Your task to perform on an android device: Open CNN.com Image 0: 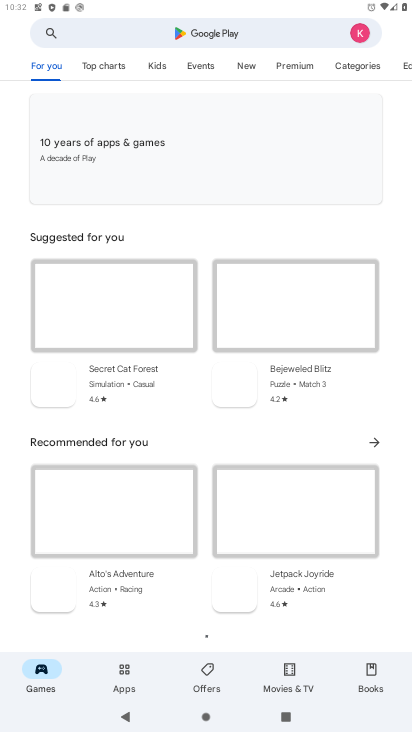
Step 0: press home button
Your task to perform on an android device: Open CNN.com Image 1: 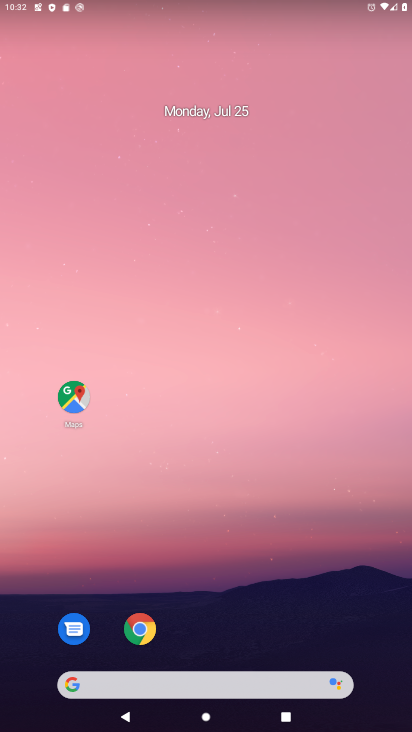
Step 1: click (139, 624)
Your task to perform on an android device: Open CNN.com Image 2: 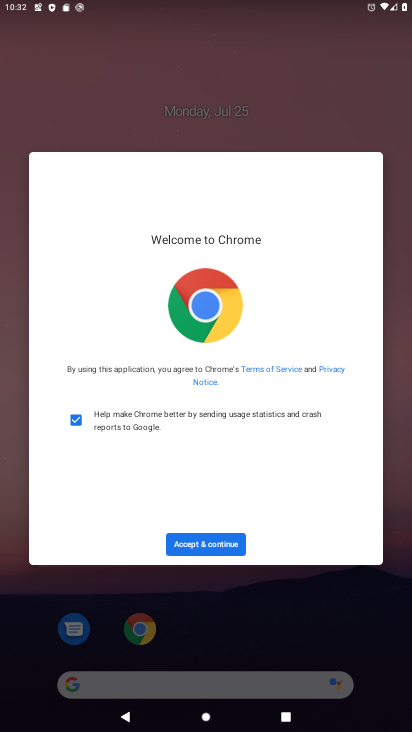
Step 2: click (222, 538)
Your task to perform on an android device: Open CNN.com Image 3: 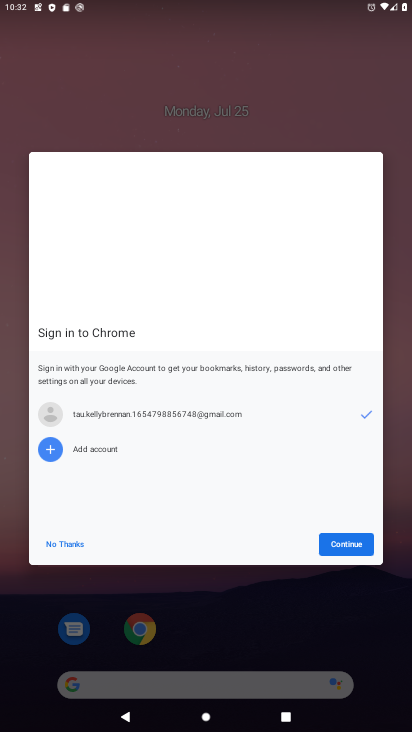
Step 3: click (352, 543)
Your task to perform on an android device: Open CNN.com Image 4: 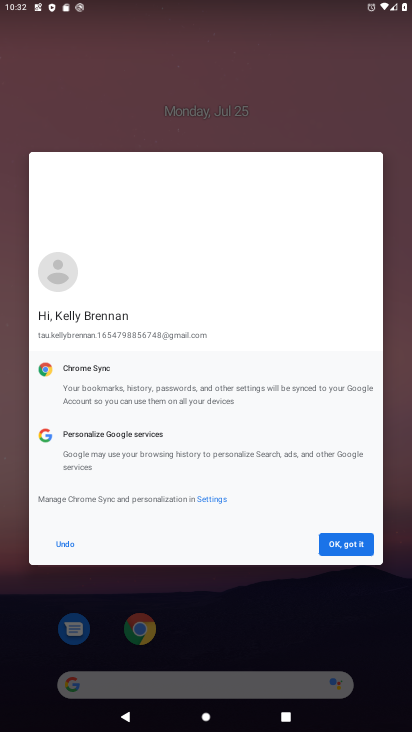
Step 4: click (352, 543)
Your task to perform on an android device: Open CNN.com Image 5: 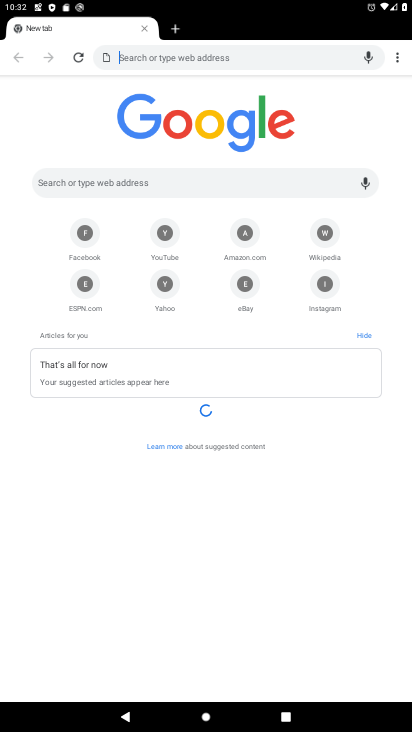
Step 5: click (155, 56)
Your task to perform on an android device: Open CNN.com Image 6: 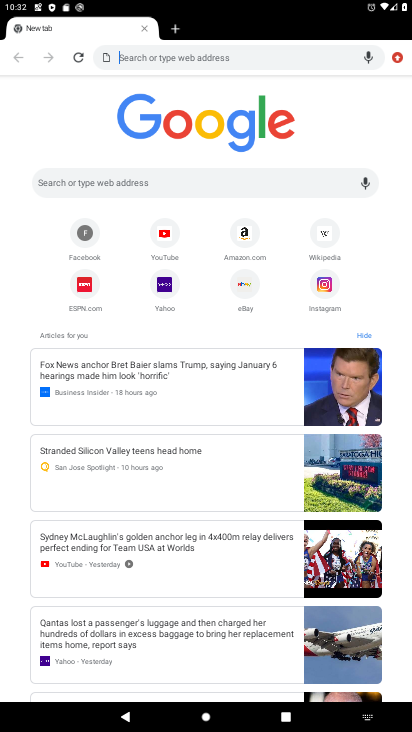
Step 6: type "CNN.com"
Your task to perform on an android device: Open CNN.com Image 7: 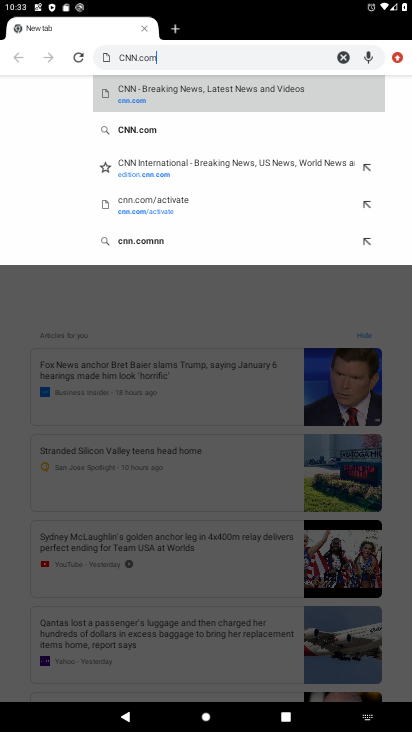
Step 7: click (257, 96)
Your task to perform on an android device: Open CNN.com Image 8: 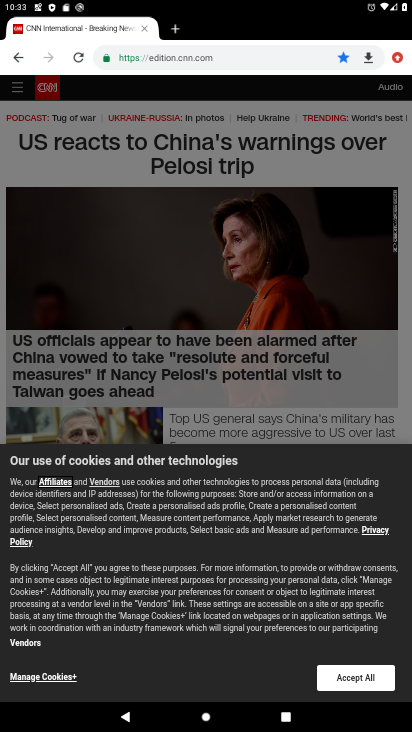
Step 8: task complete